Your task to perform on an android device: Open display settings Image 0: 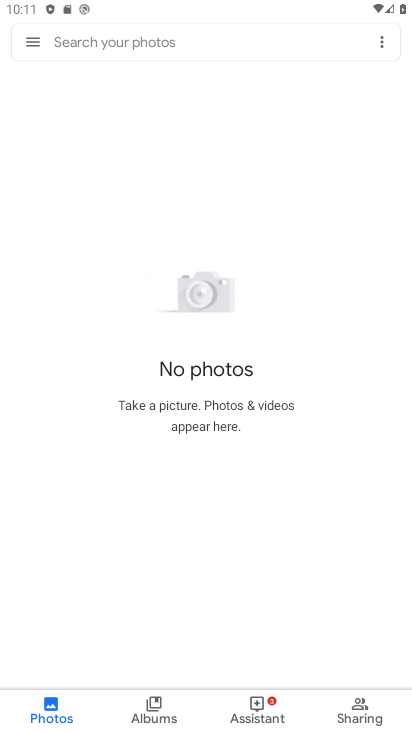
Step 0: press home button
Your task to perform on an android device: Open display settings Image 1: 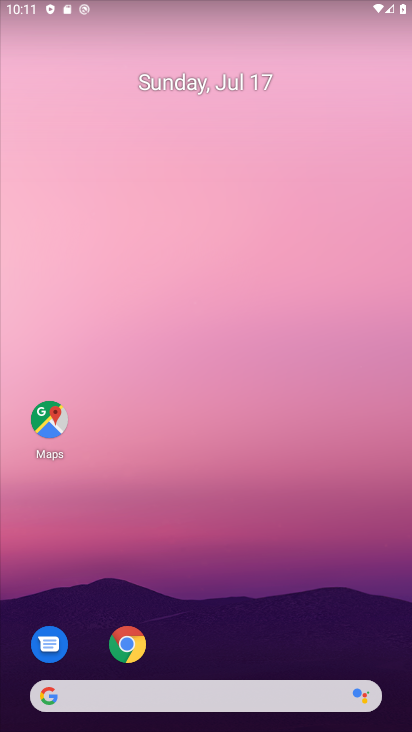
Step 1: drag from (263, 542) to (280, 30)
Your task to perform on an android device: Open display settings Image 2: 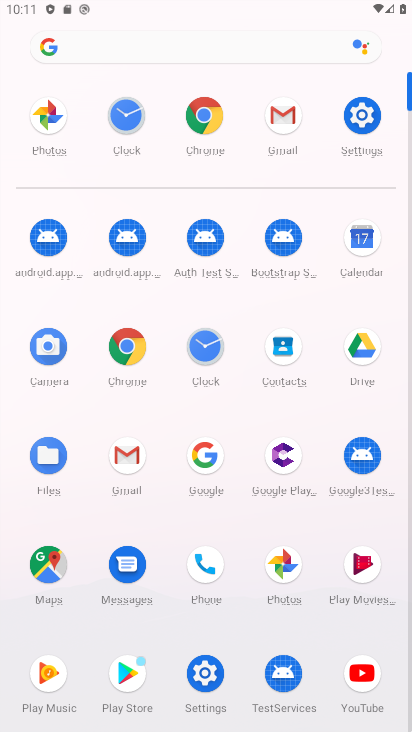
Step 2: click (355, 133)
Your task to perform on an android device: Open display settings Image 3: 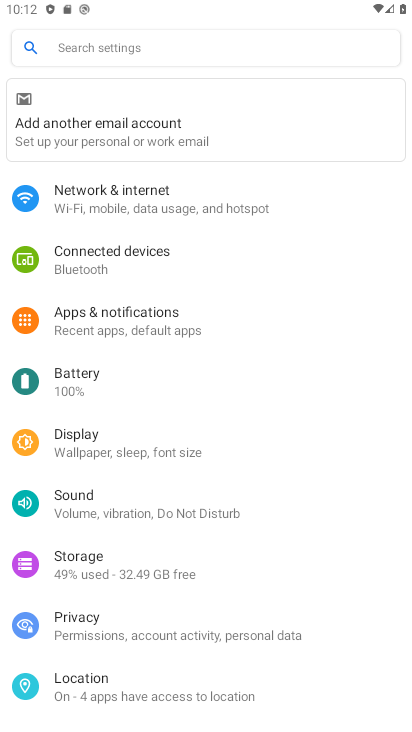
Step 3: click (121, 461)
Your task to perform on an android device: Open display settings Image 4: 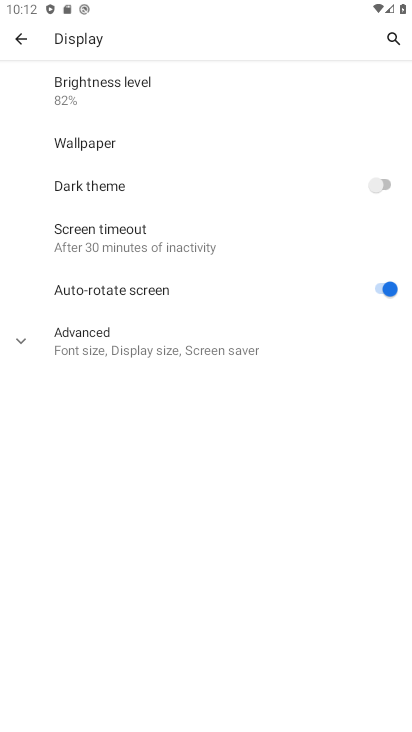
Step 4: task complete